Your task to perform on an android device: Search for hotels in Tokyo Image 0: 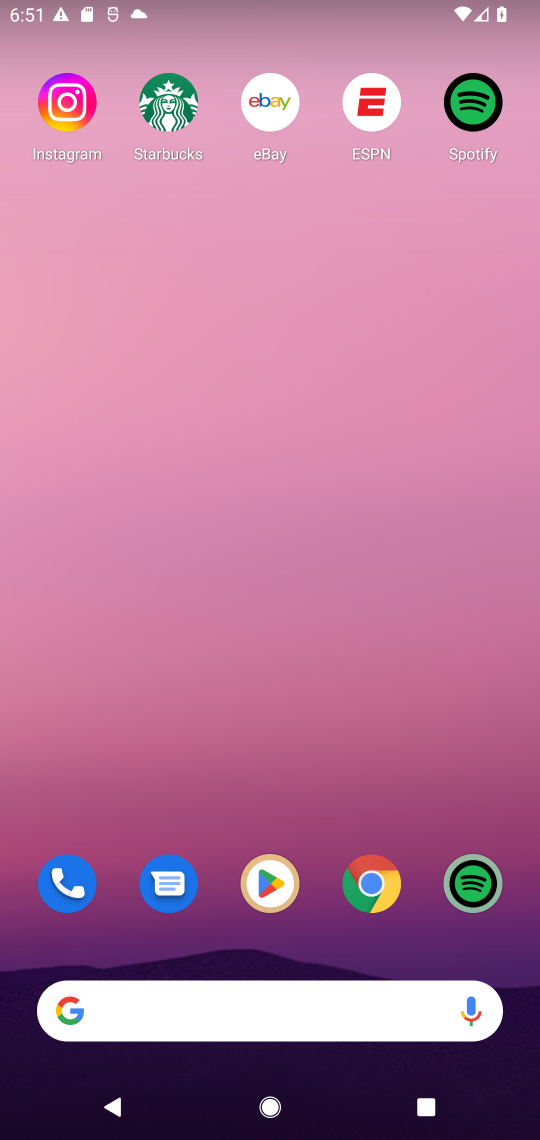
Step 0: drag from (332, 942) to (261, 86)
Your task to perform on an android device: Search for hotels in Tokyo Image 1: 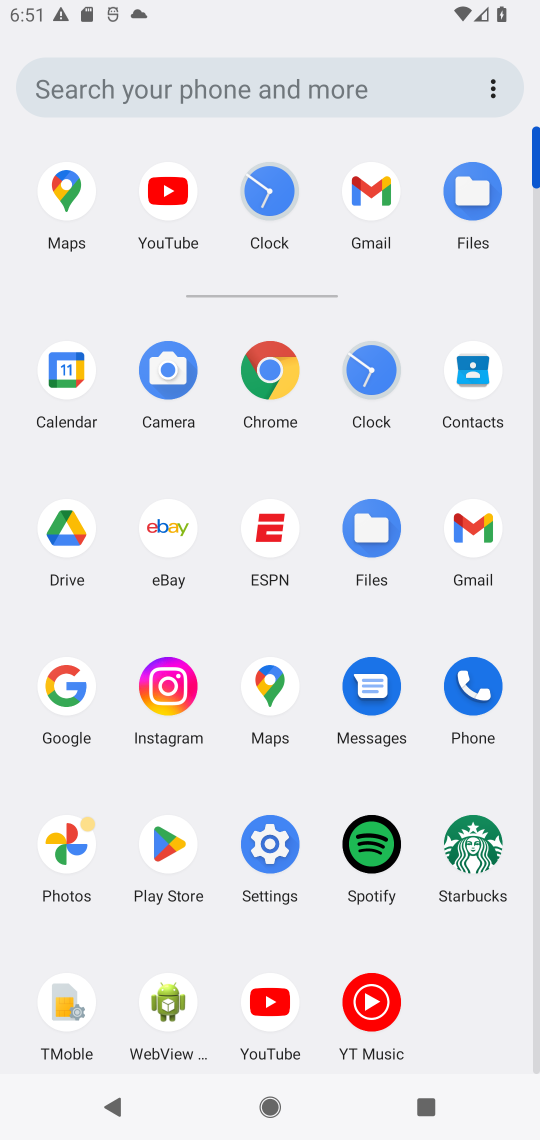
Step 1: click (261, 370)
Your task to perform on an android device: Search for hotels in Tokyo Image 2: 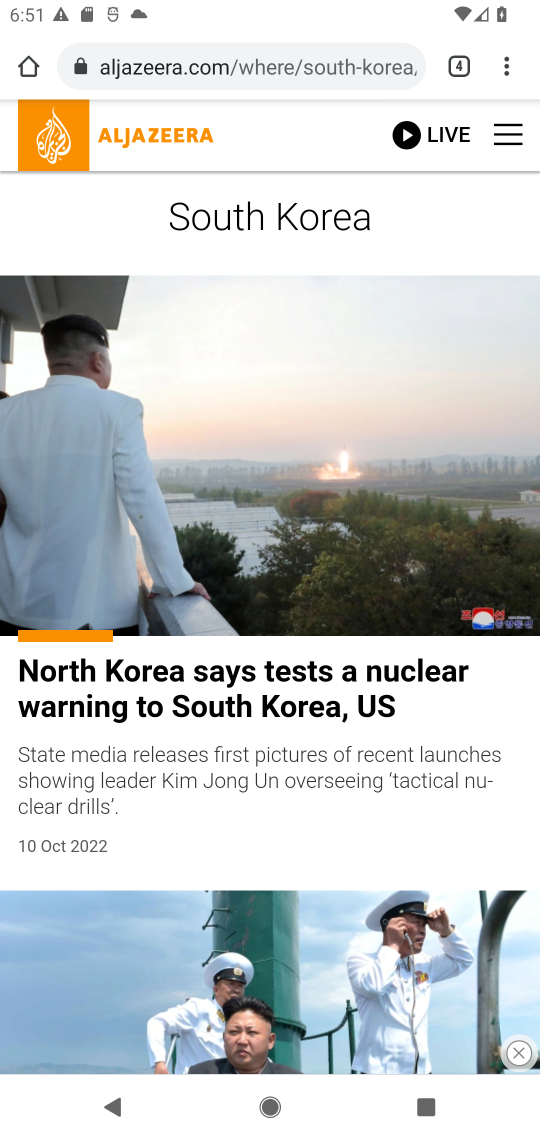
Step 2: click (268, 63)
Your task to perform on an android device: Search for hotels in Tokyo Image 3: 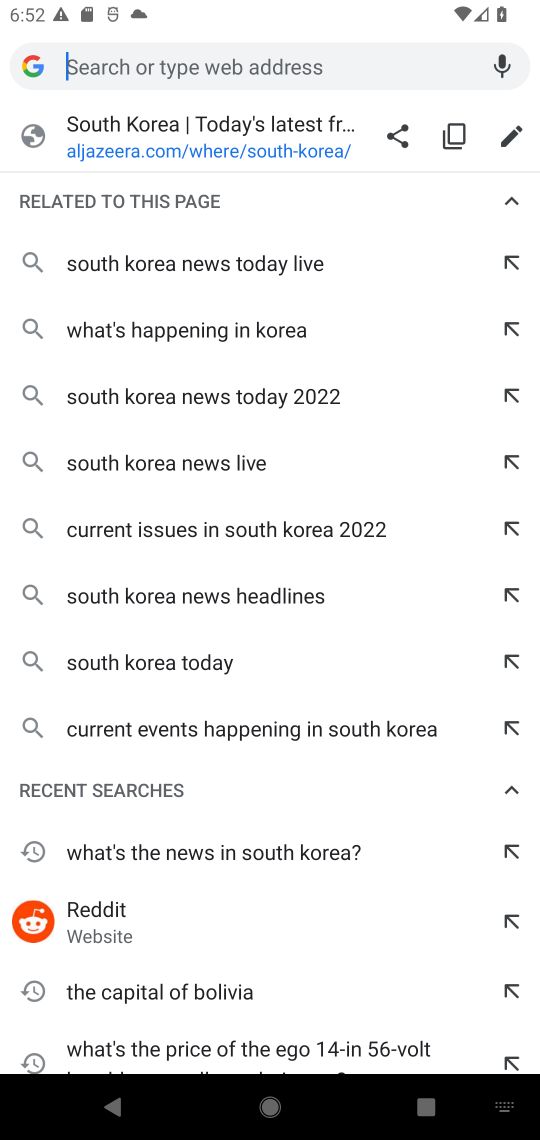
Step 3: type "hotel in Tokyo"
Your task to perform on an android device: Search for hotels in Tokyo Image 4: 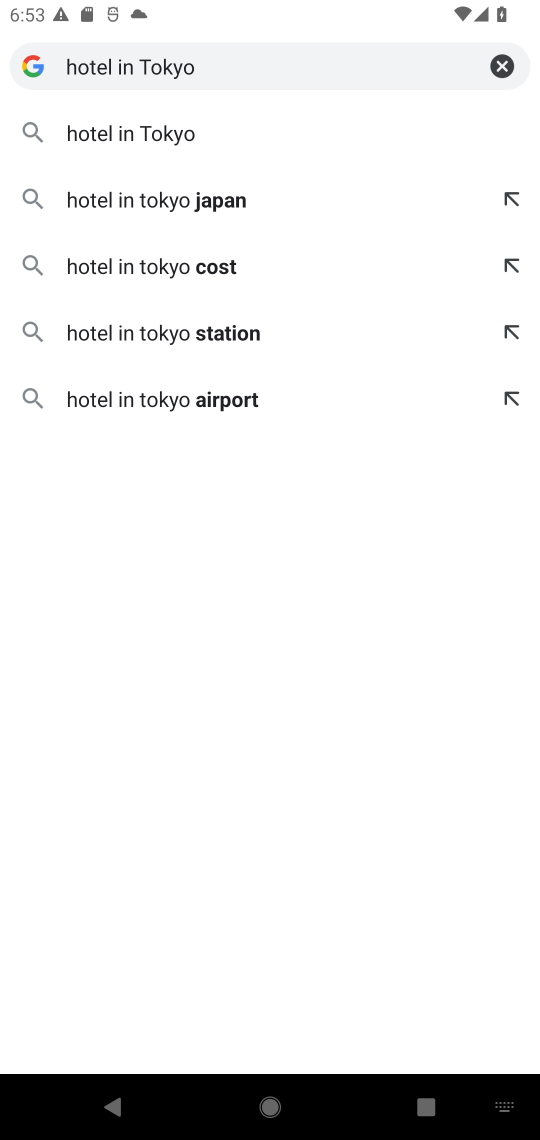
Step 4: press enter
Your task to perform on an android device: Search for hotels in Tokyo Image 5: 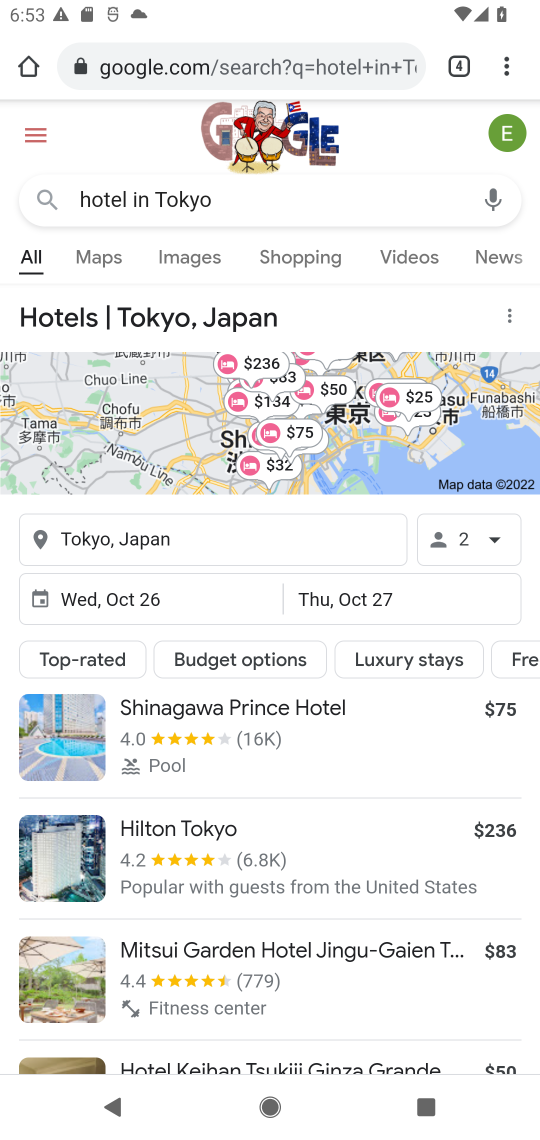
Step 5: task complete